Your task to perform on an android device: Clear all items from cart on amazon.com. Image 0: 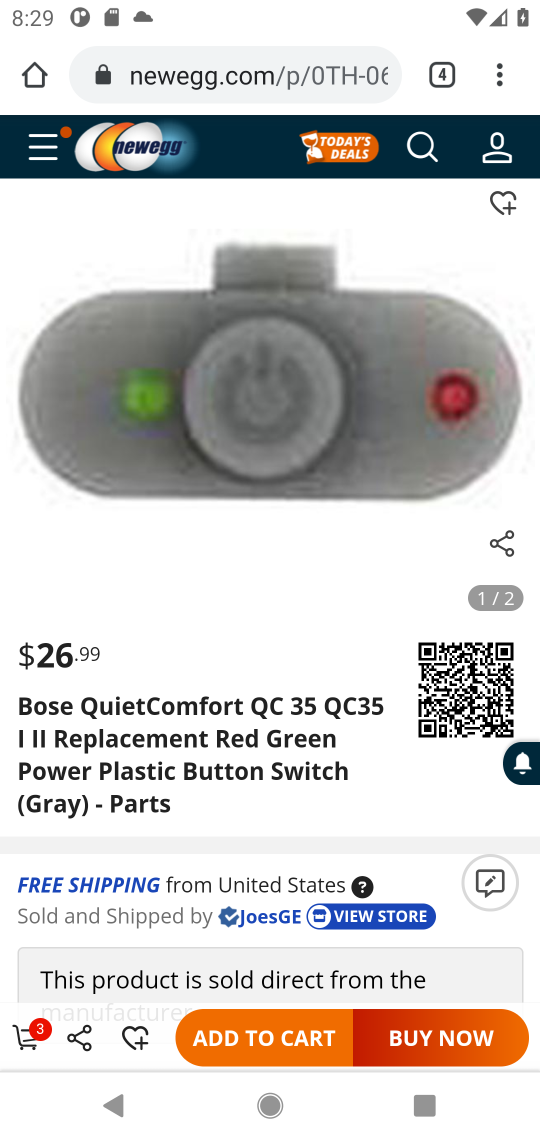
Step 0: press home button
Your task to perform on an android device: Clear all items from cart on amazon.com. Image 1: 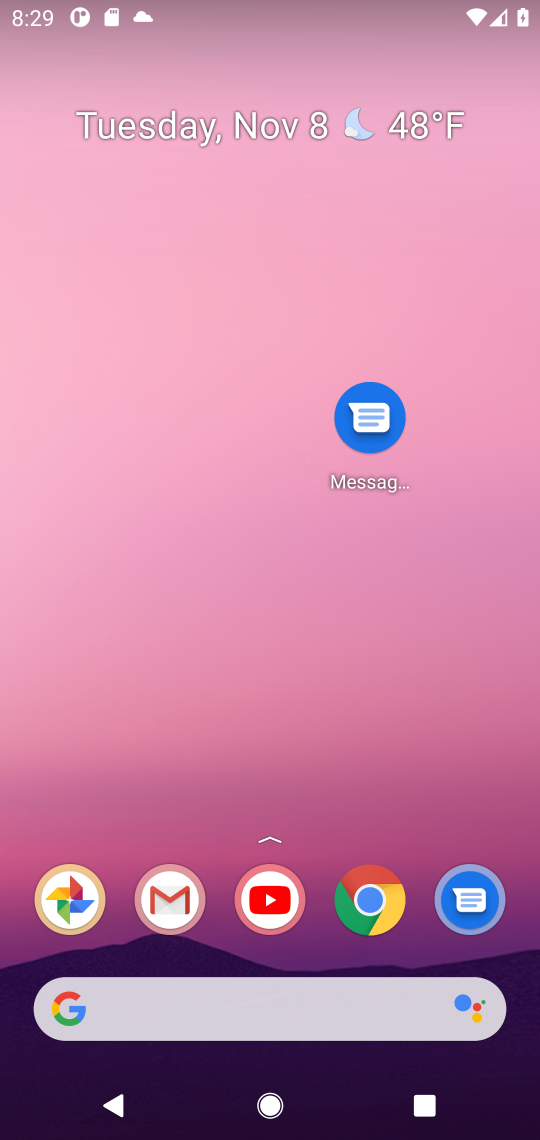
Step 1: drag from (218, 887) to (271, 312)
Your task to perform on an android device: Clear all items from cart on amazon.com. Image 2: 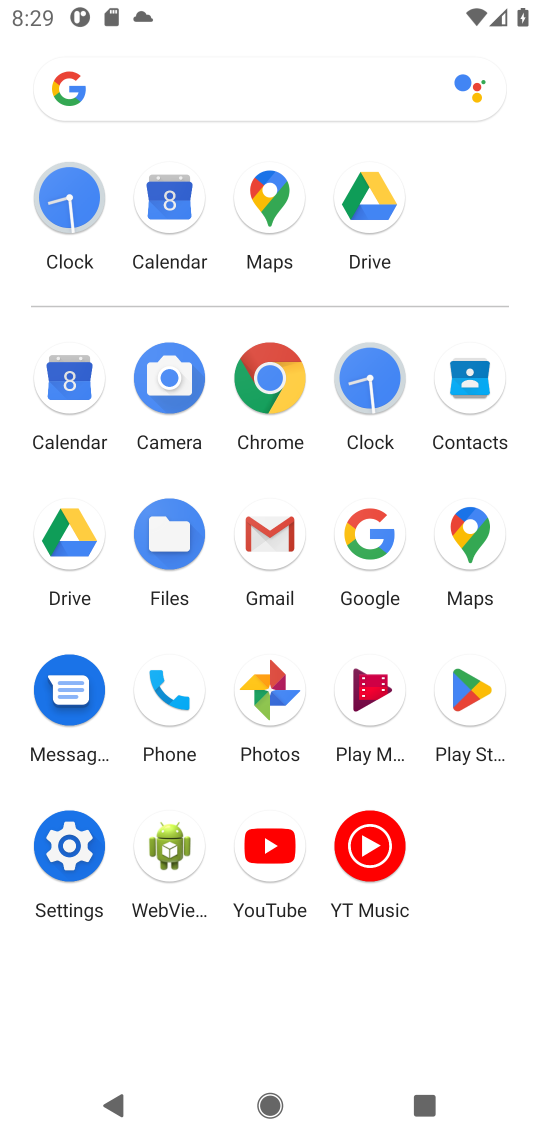
Step 2: click (368, 520)
Your task to perform on an android device: Clear all items from cart on amazon.com. Image 3: 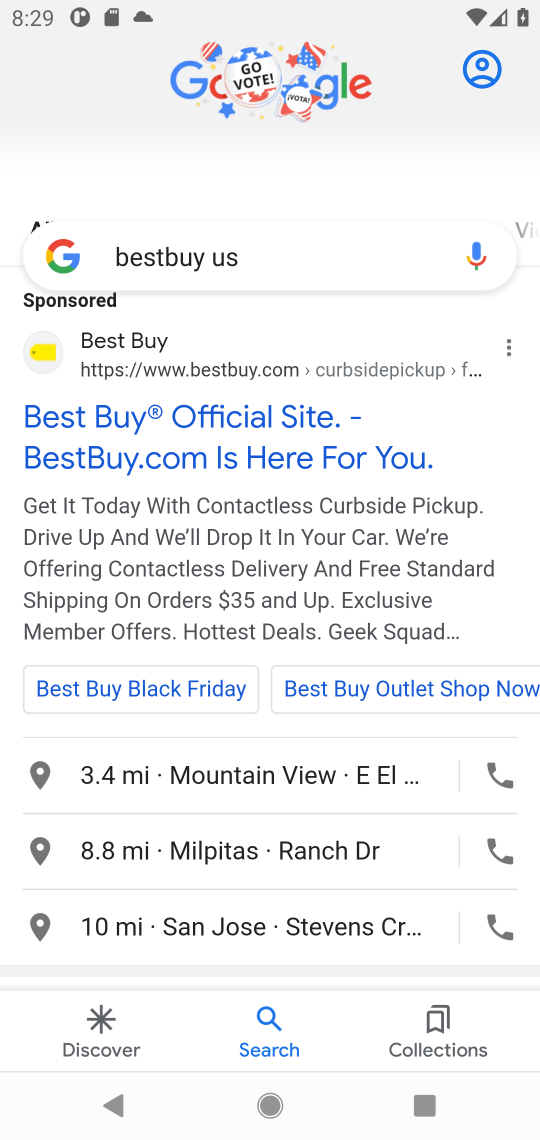
Step 3: click (325, 249)
Your task to perform on an android device: Clear all items from cart on amazon.com. Image 4: 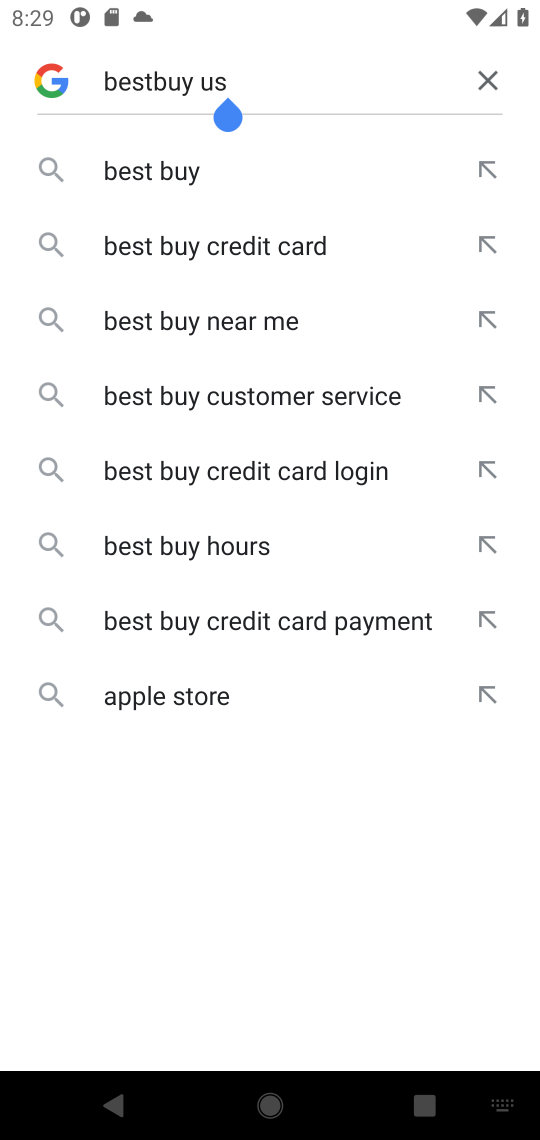
Step 4: click (486, 86)
Your task to perform on an android device: Clear all items from cart on amazon.com. Image 5: 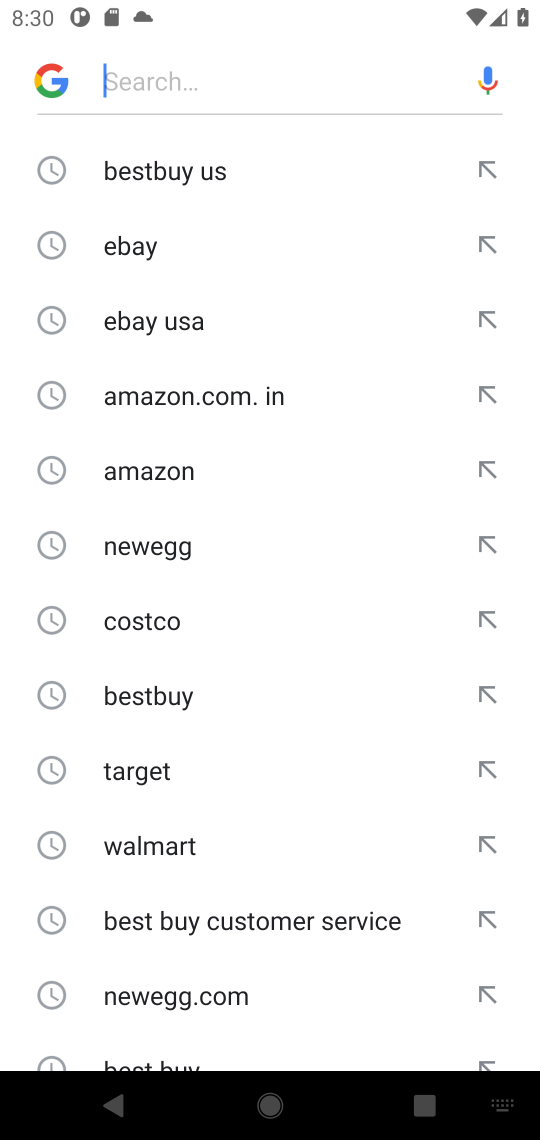
Step 5: click (193, 383)
Your task to perform on an android device: Clear all items from cart on amazon.com. Image 6: 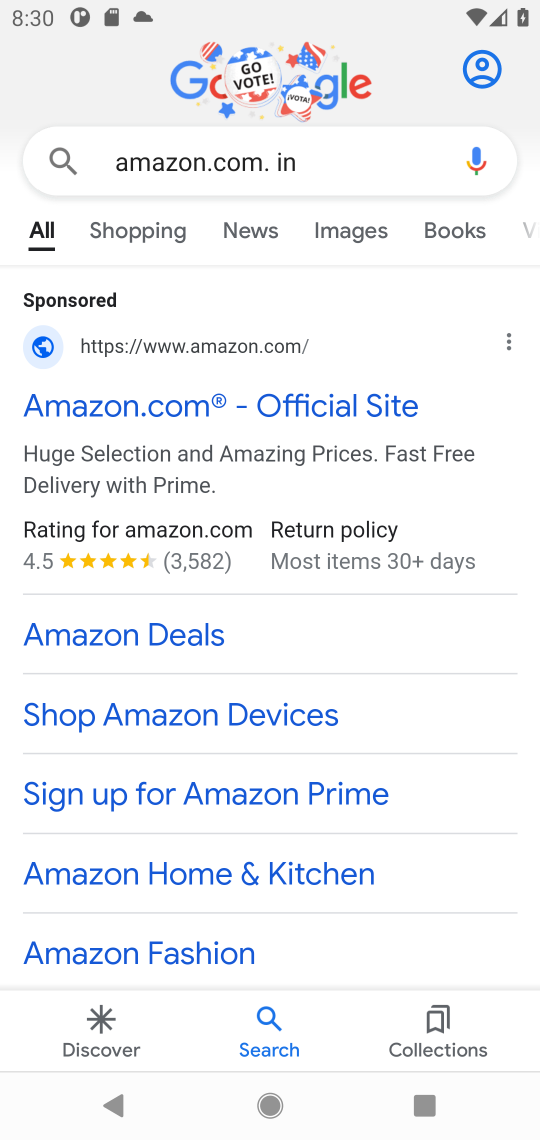
Step 6: drag from (103, 816) to (230, 409)
Your task to perform on an android device: Clear all items from cart on amazon.com. Image 7: 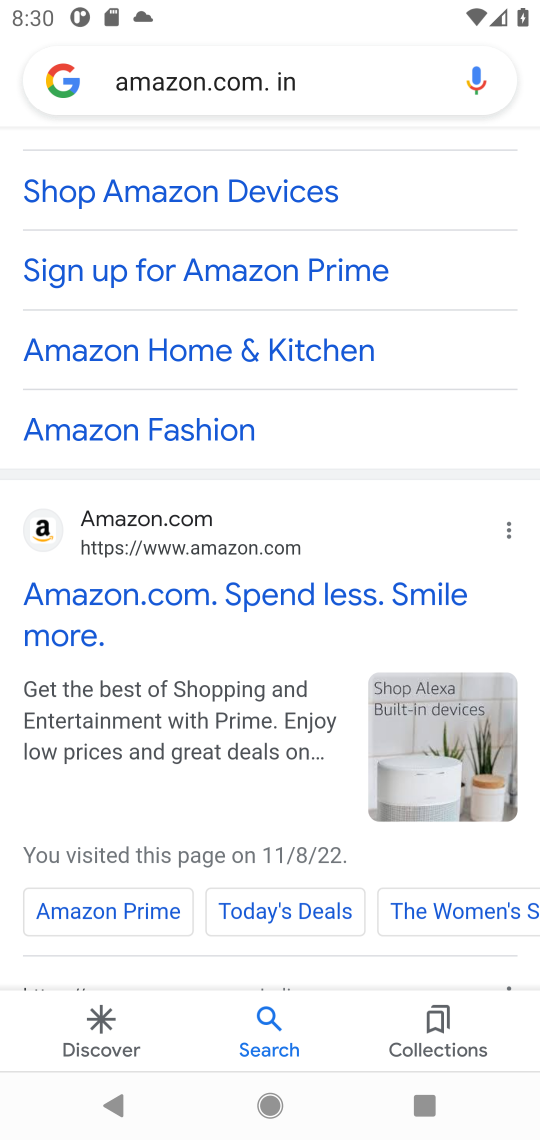
Step 7: click (47, 530)
Your task to perform on an android device: Clear all items from cart on amazon.com. Image 8: 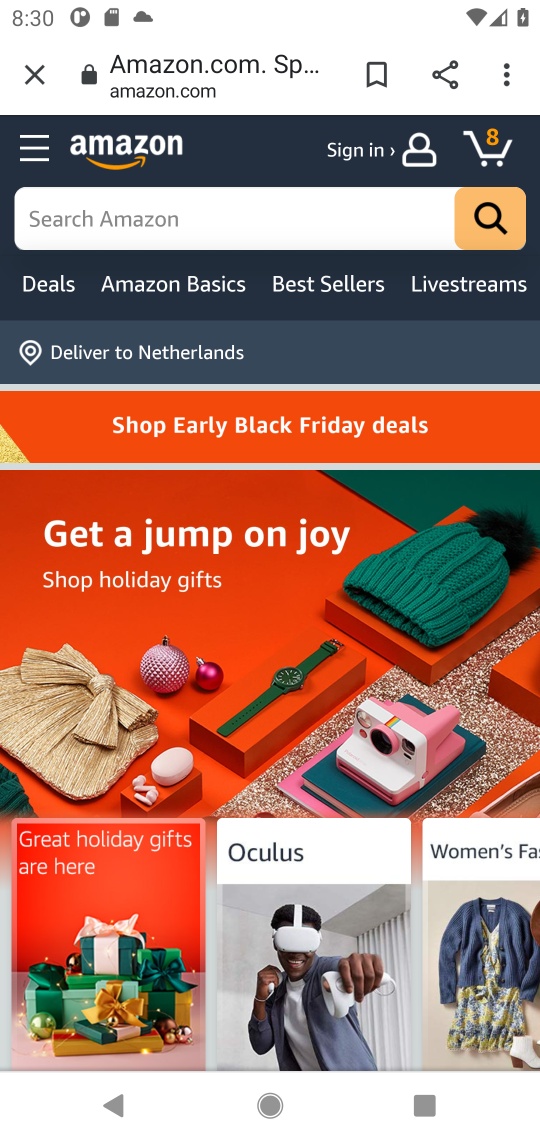
Step 8: click (205, 206)
Your task to perform on an android device: Clear all items from cart on amazon.com. Image 9: 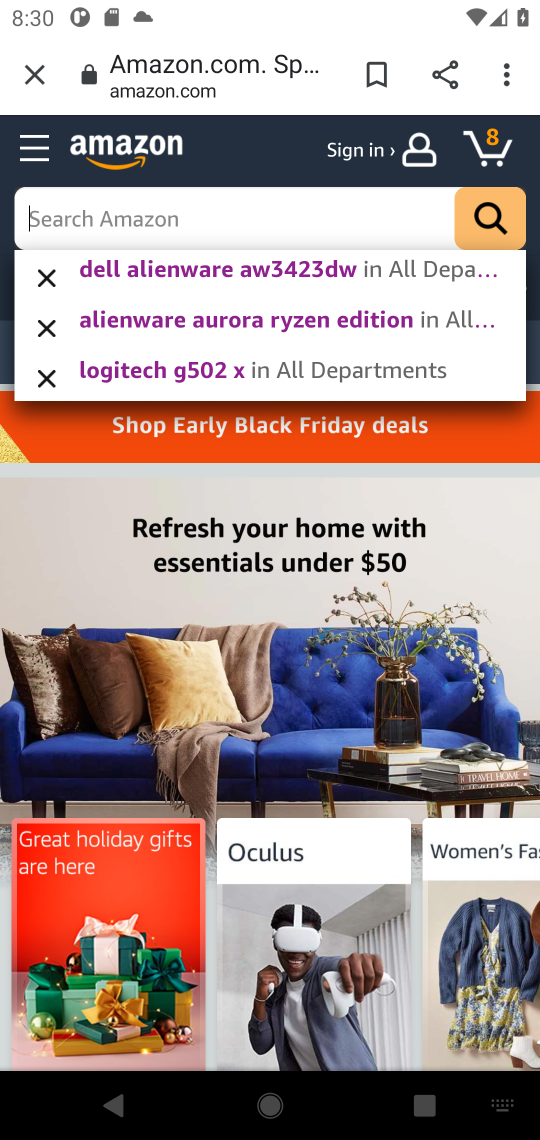
Step 9: click (483, 142)
Your task to perform on an android device: Clear all items from cart on amazon.com. Image 10: 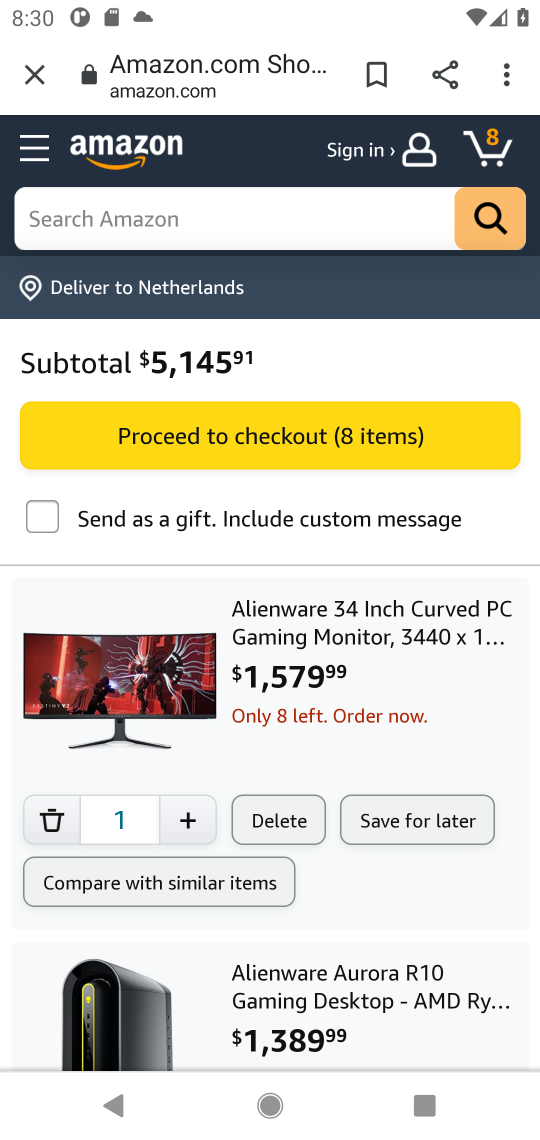
Step 10: click (51, 814)
Your task to perform on an android device: Clear all items from cart on amazon.com. Image 11: 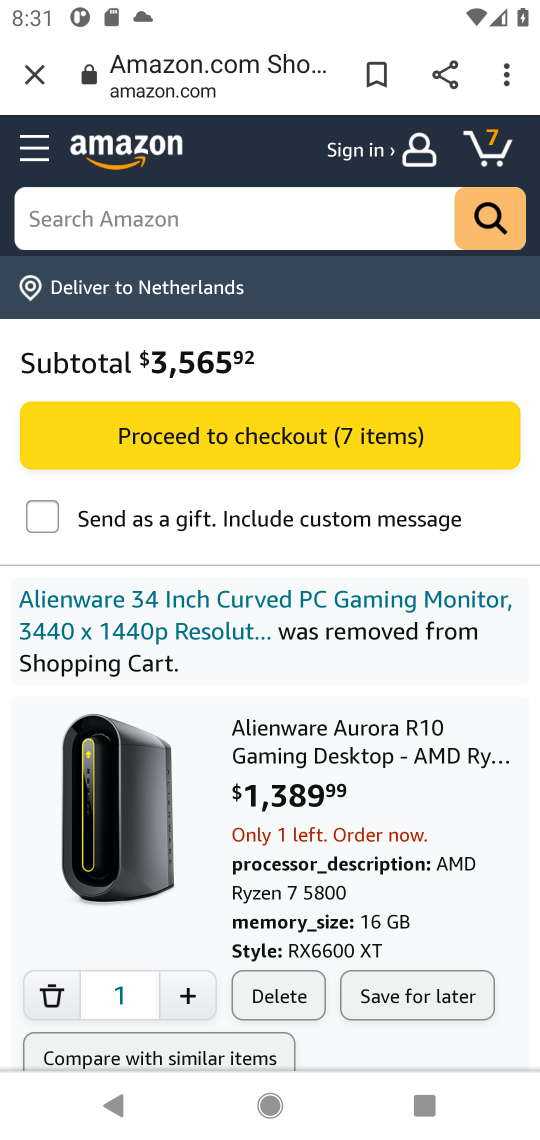
Step 11: click (42, 989)
Your task to perform on an android device: Clear all items from cart on amazon.com. Image 12: 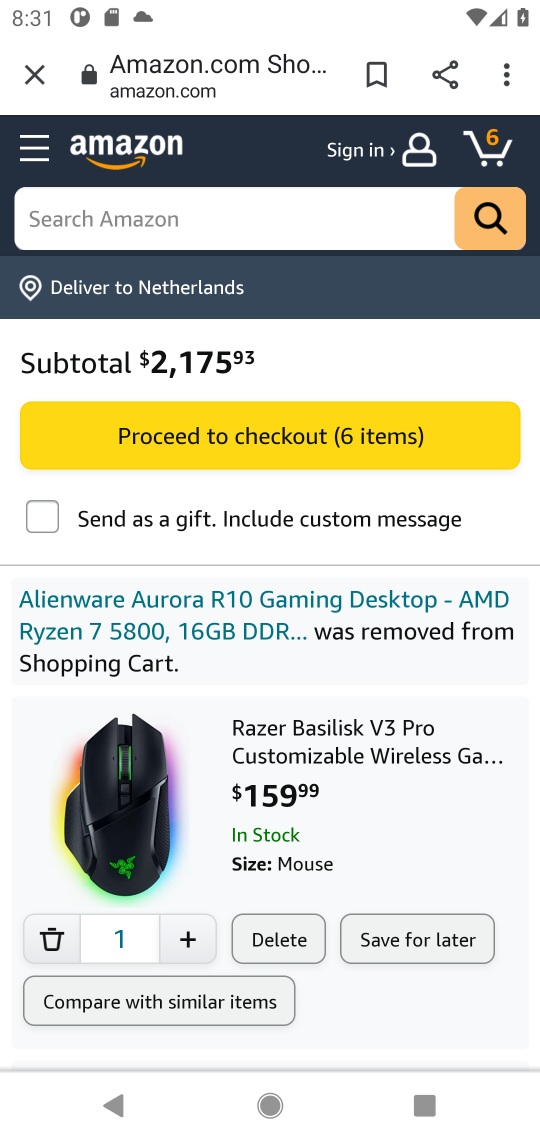
Step 12: click (42, 942)
Your task to perform on an android device: Clear all items from cart on amazon.com. Image 13: 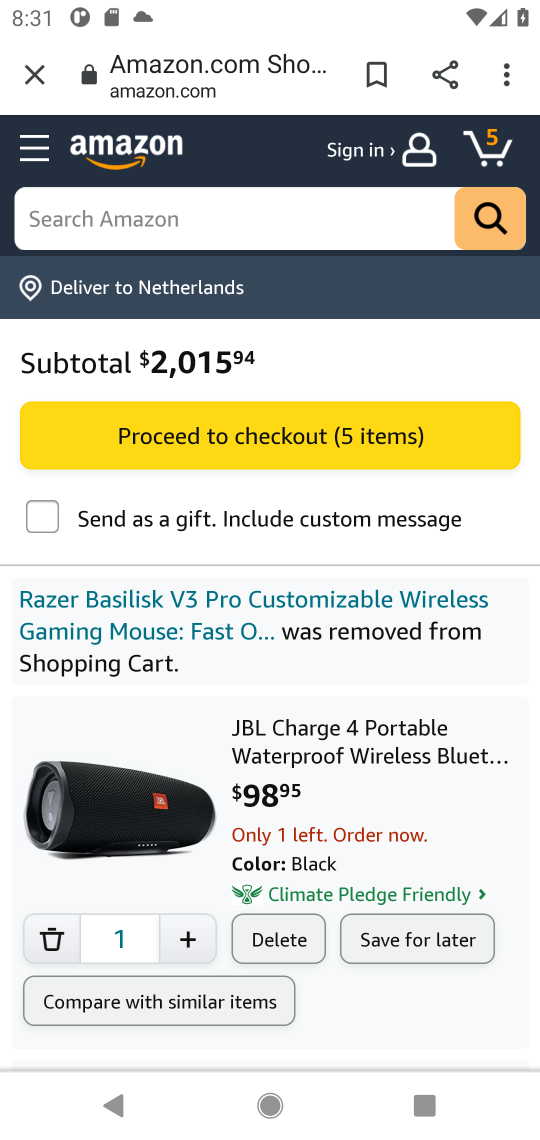
Step 13: click (44, 935)
Your task to perform on an android device: Clear all items from cart on amazon.com. Image 14: 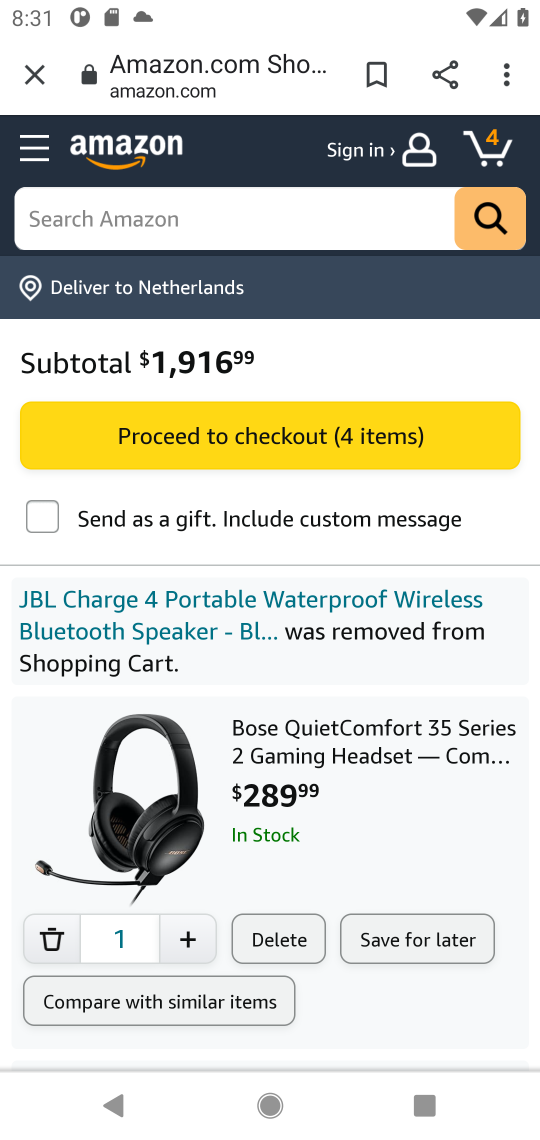
Step 14: click (44, 927)
Your task to perform on an android device: Clear all items from cart on amazon.com. Image 15: 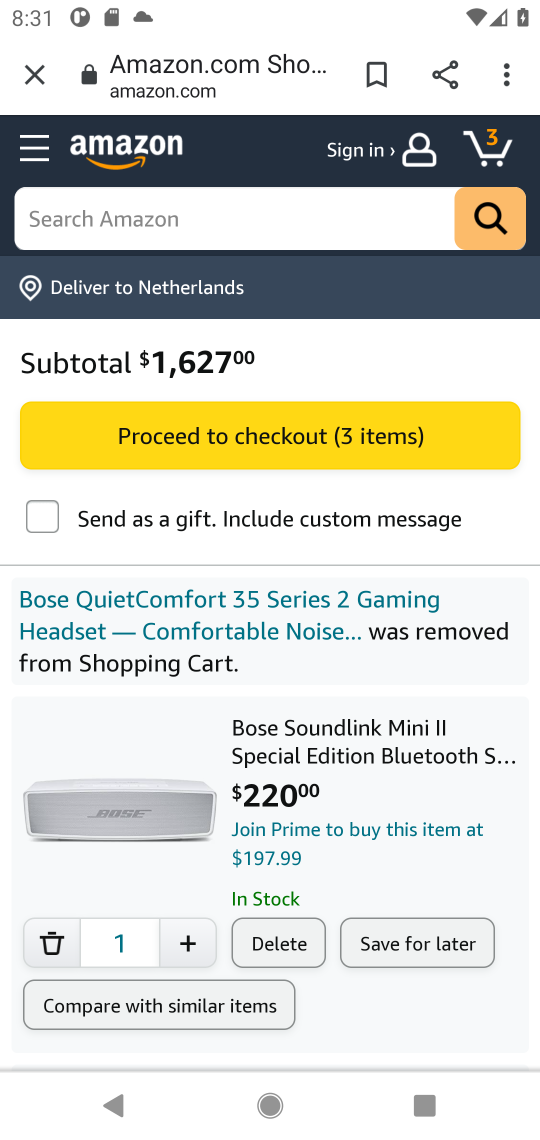
Step 15: click (44, 930)
Your task to perform on an android device: Clear all items from cart on amazon.com. Image 16: 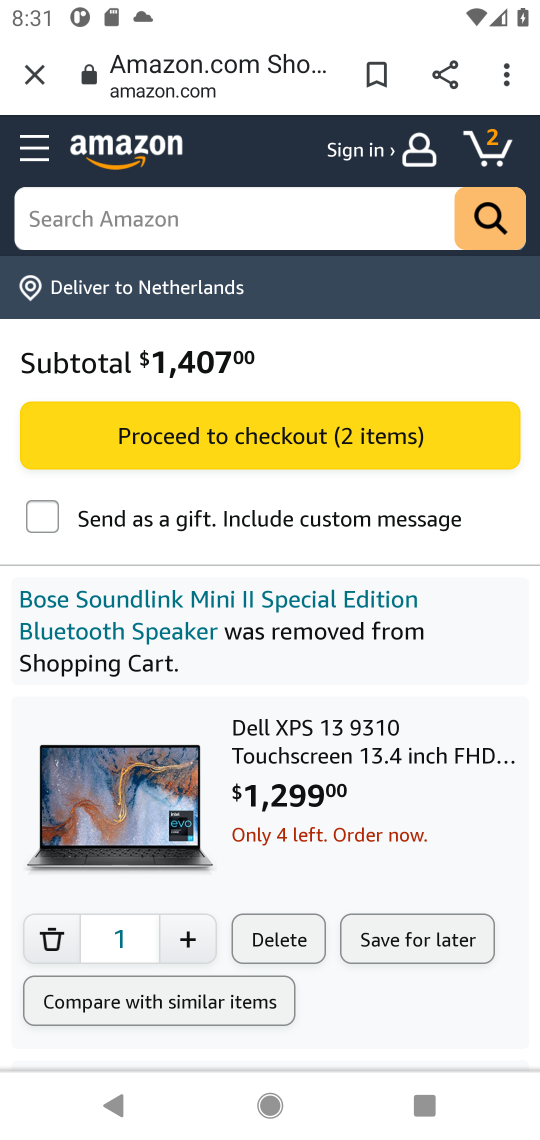
Step 16: click (53, 932)
Your task to perform on an android device: Clear all items from cart on amazon.com. Image 17: 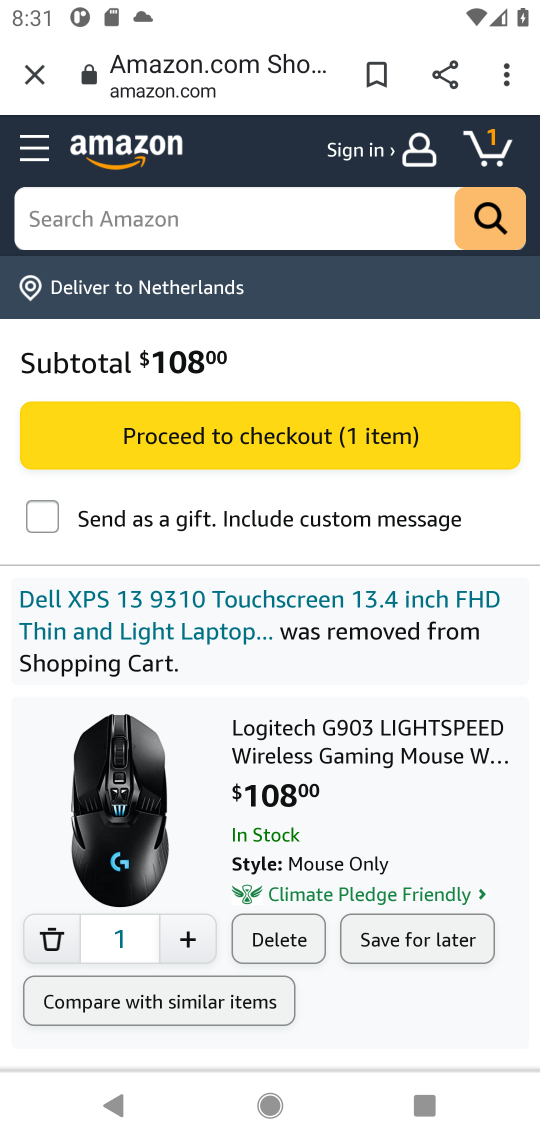
Step 17: click (53, 932)
Your task to perform on an android device: Clear all items from cart on amazon.com. Image 18: 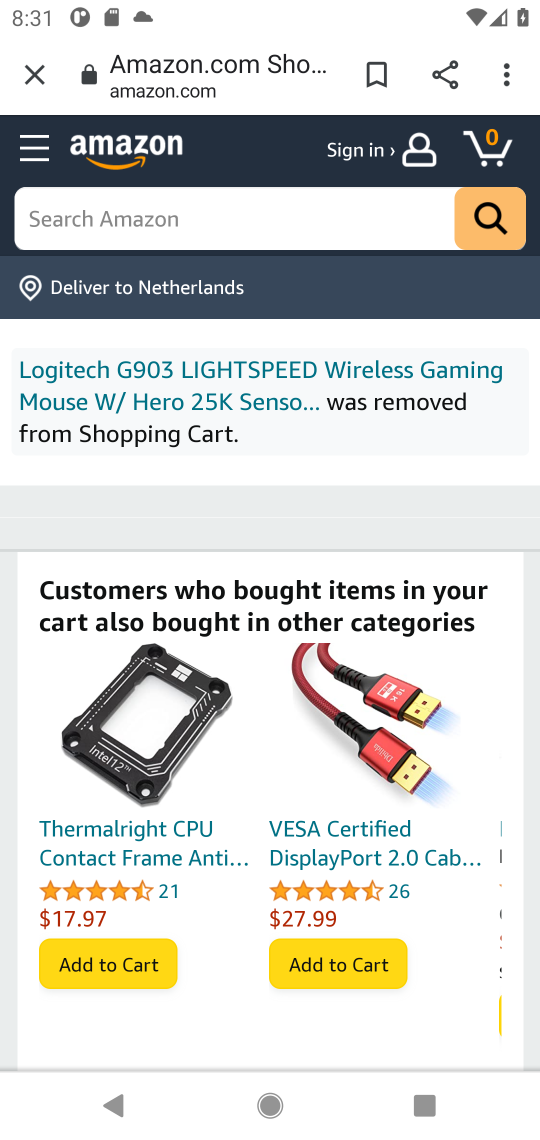
Step 18: click (53, 932)
Your task to perform on an android device: Clear all items from cart on amazon.com. Image 19: 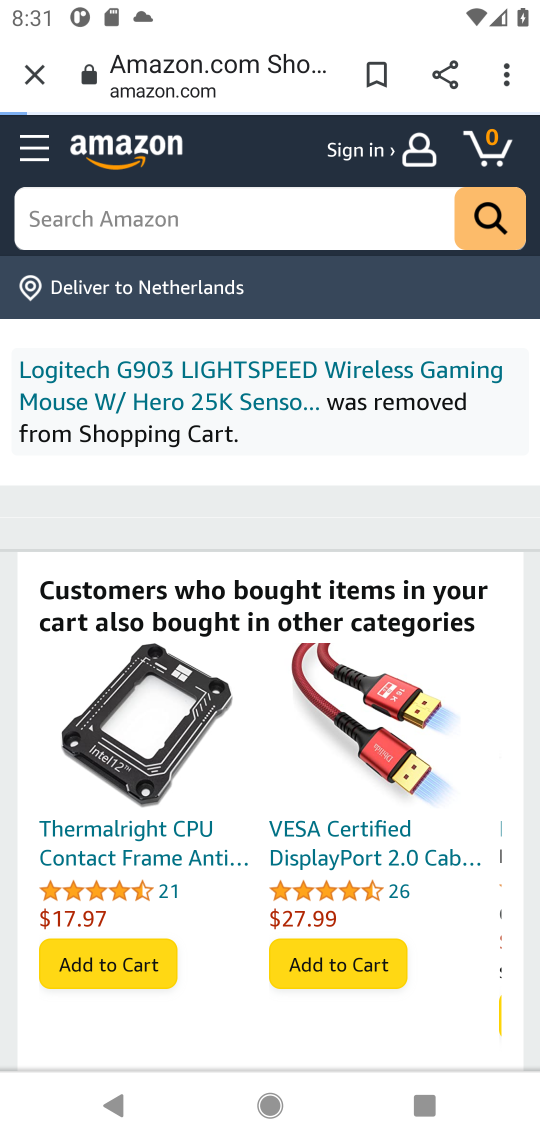
Step 19: task complete